Your task to perform on an android device: Open Youtube and go to the subscriptions tab Image 0: 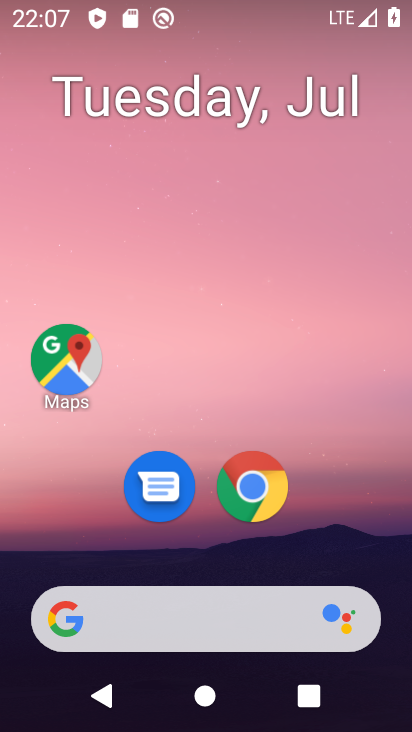
Step 0: press home button
Your task to perform on an android device: Open Youtube and go to the subscriptions tab Image 1: 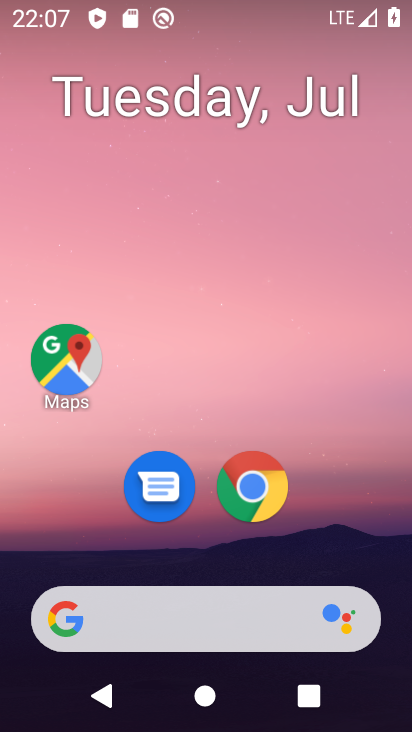
Step 1: drag from (368, 516) to (409, 131)
Your task to perform on an android device: Open Youtube and go to the subscriptions tab Image 2: 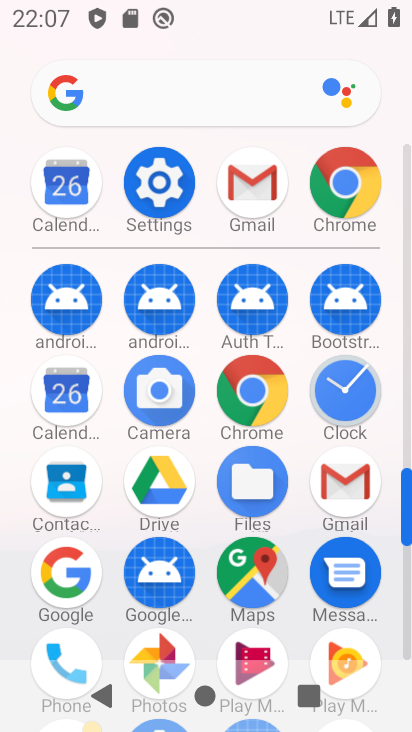
Step 2: drag from (398, 421) to (400, 235)
Your task to perform on an android device: Open Youtube and go to the subscriptions tab Image 3: 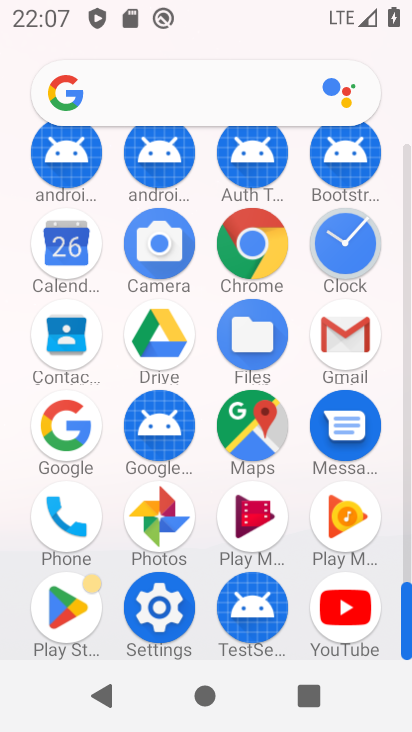
Step 3: click (341, 620)
Your task to perform on an android device: Open Youtube and go to the subscriptions tab Image 4: 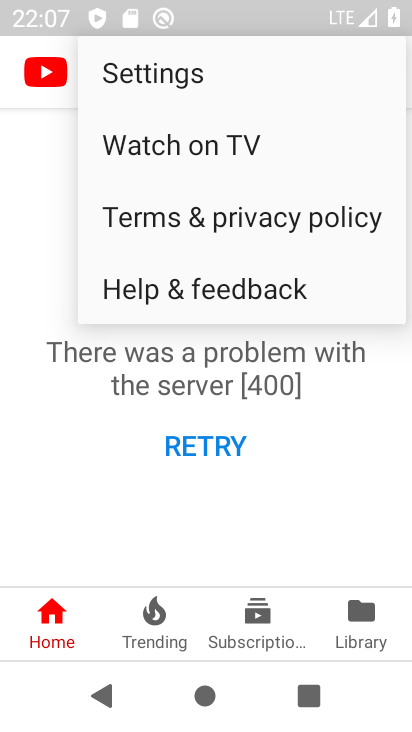
Step 4: click (259, 617)
Your task to perform on an android device: Open Youtube and go to the subscriptions tab Image 5: 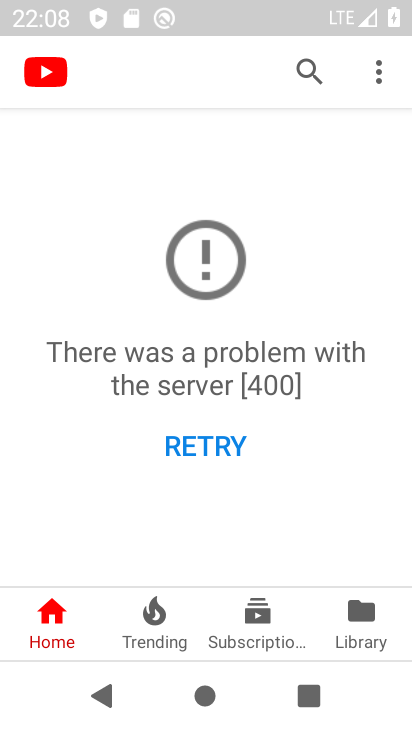
Step 5: click (259, 617)
Your task to perform on an android device: Open Youtube and go to the subscriptions tab Image 6: 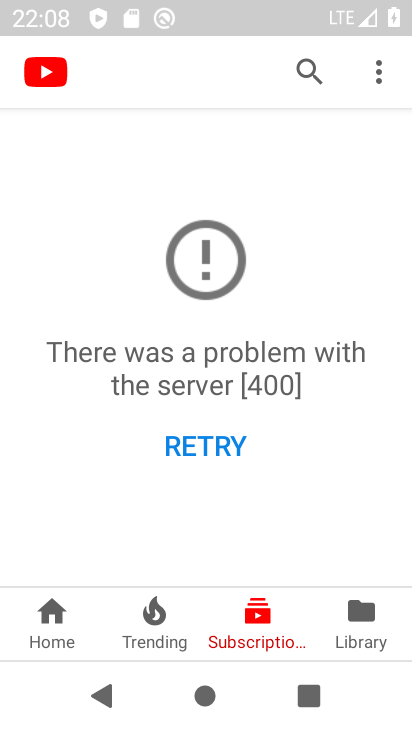
Step 6: task complete